Your task to perform on an android device: find snoozed emails in the gmail app Image 0: 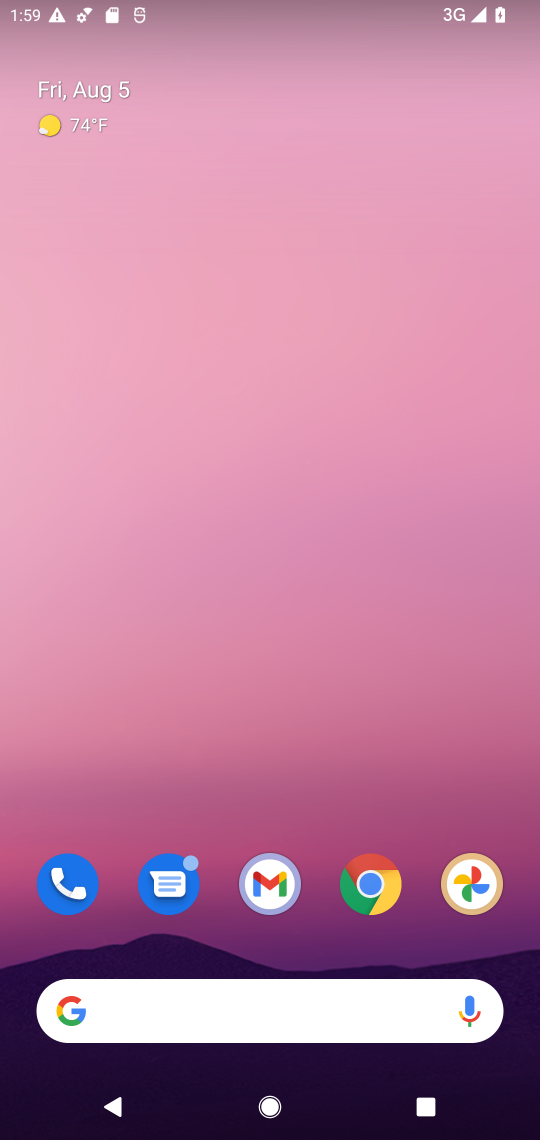
Step 0: drag from (457, 807) to (250, 65)
Your task to perform on an android device: find snoozed emails in the gmail app Image 1: 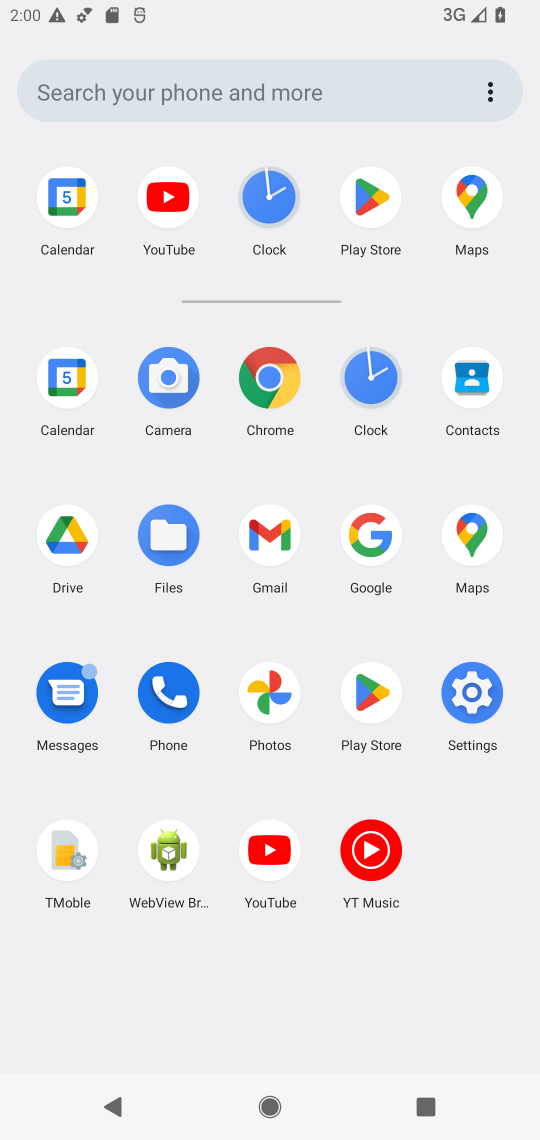
Step 1: click (283, 509)
Your task to perform on an android device: find snoozed emails in the gmail app Image 2: 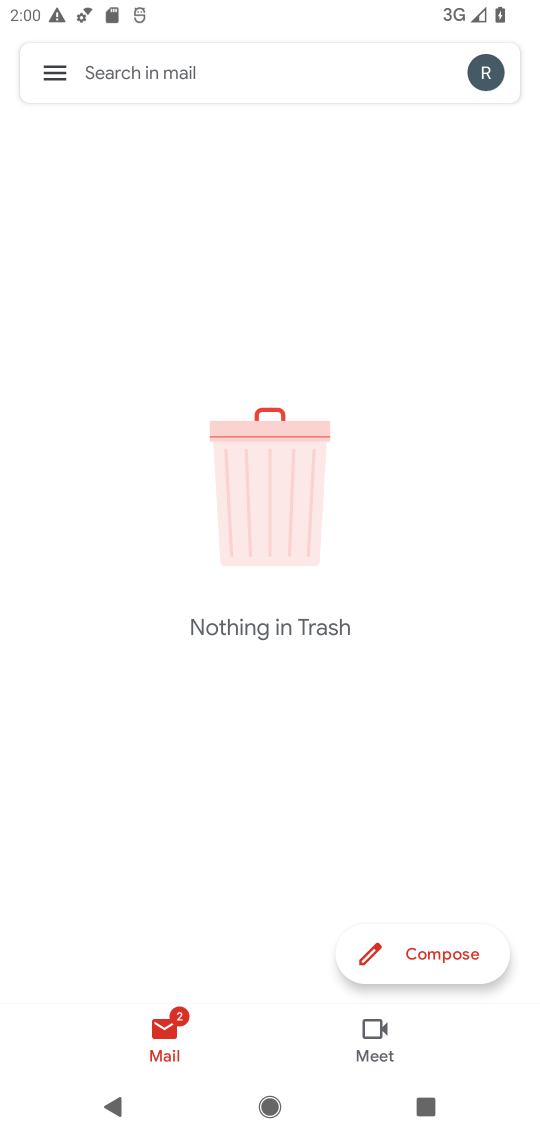
Step 2: click (66, 77)
Your task to perform on an android device: find snoozed emails in the gmail app Image 3: 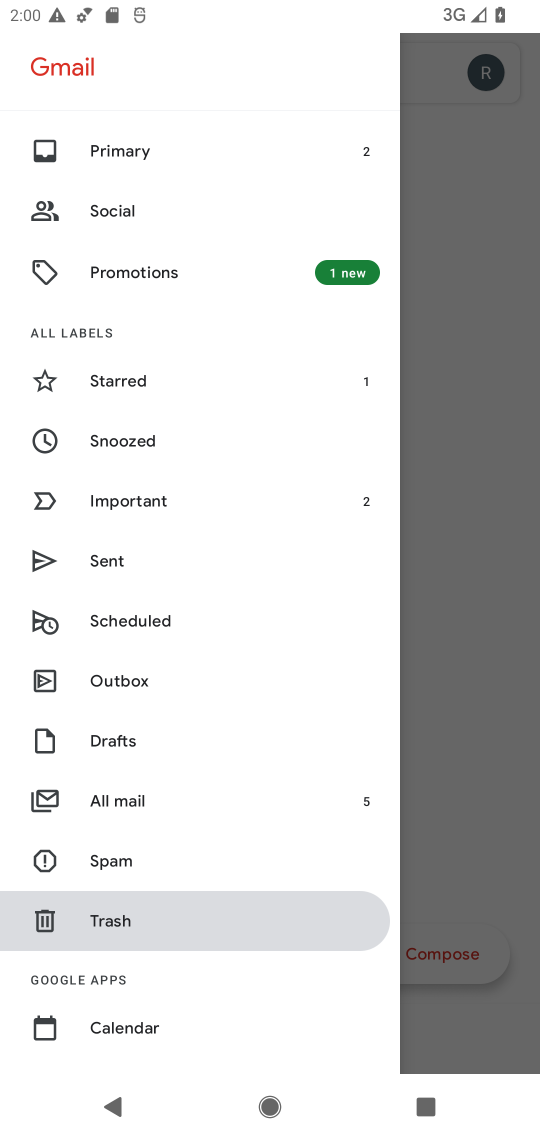
Step 3: click (145, 453)
Your task to perform on an android device: find snoozed emails in the gmail app Image 4: 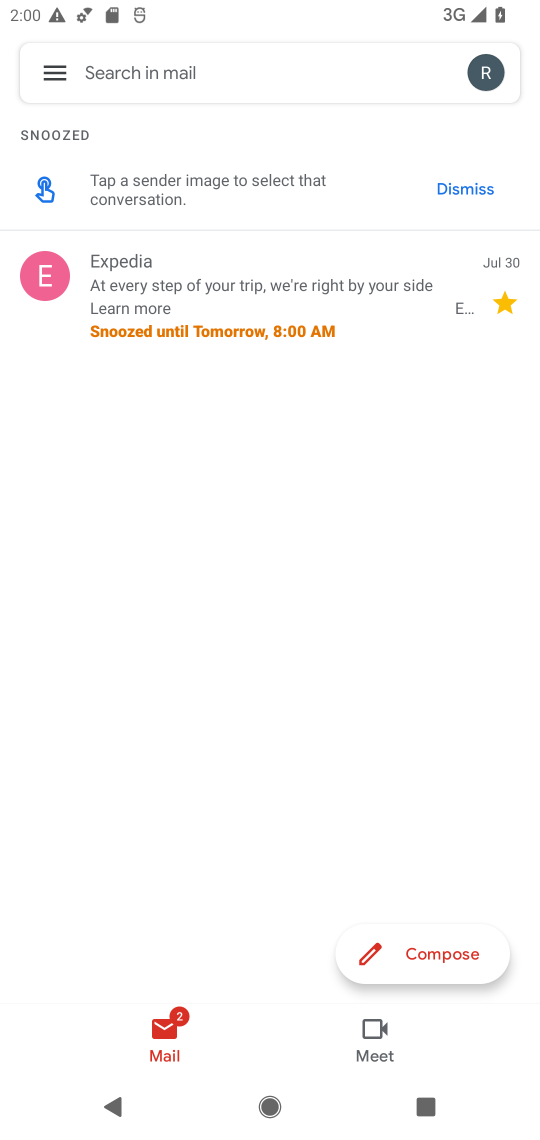
Step 4: task complete